Your task to perform on an android device: Open Chrome and go to settings Image 0: 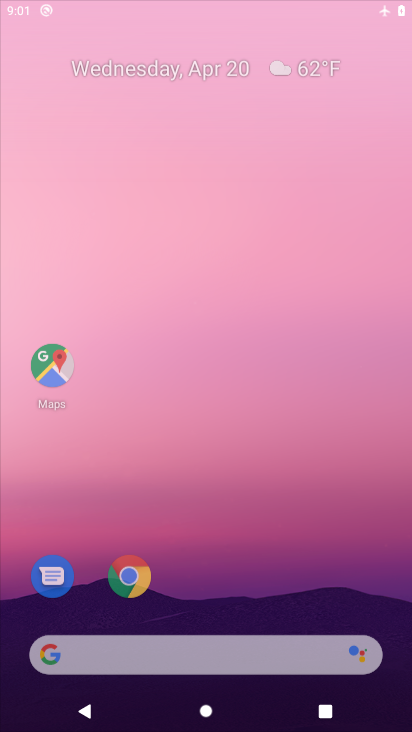
Step 0: click (294, 64)
Your task to perform on an android device: Open Chrome and go to settings Image 1: 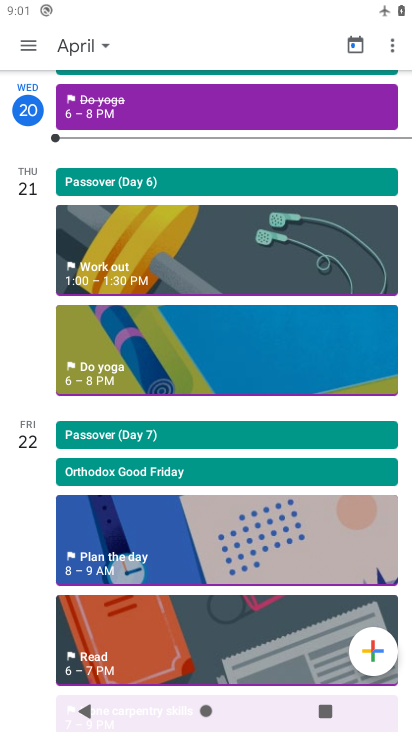
Step 1: press home button
Your task to perform on an android device: Open Chrome and go to settings Image 2: 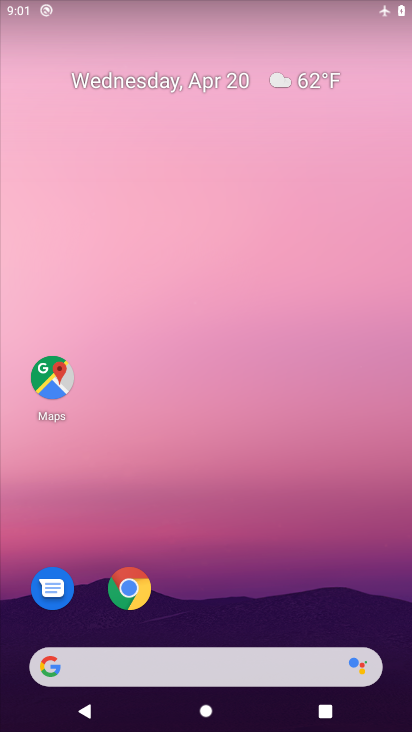
Step 2: click (127, 580)
Your task to perform on an android device: Open Chrome and go to settings Image 3: 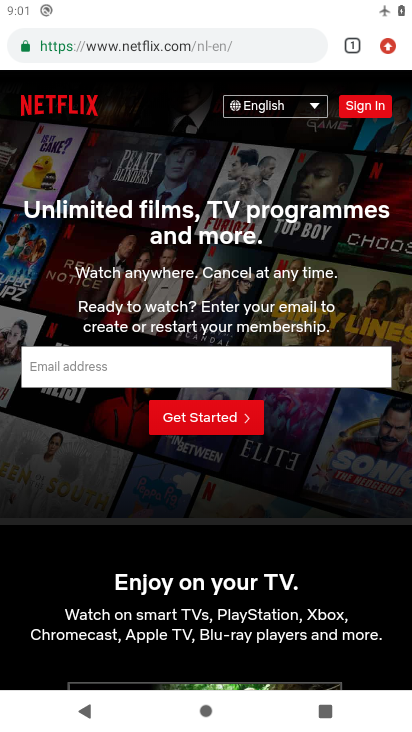
Step 3: click (386, 43)
Your task to perform on an android device: Open Chrome and go to settings Image 4: 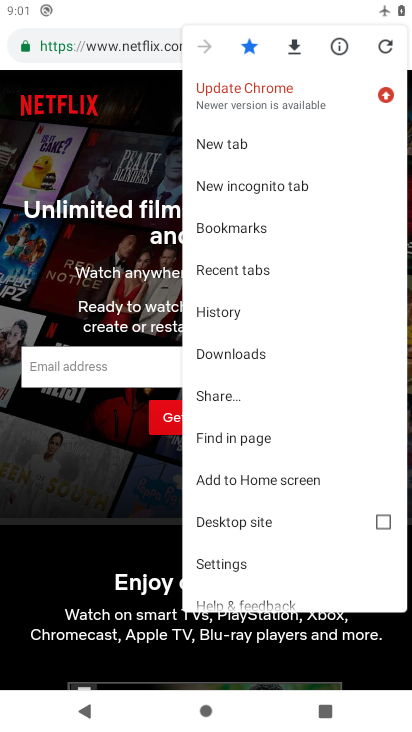
Step 4: click (252, 559)
Your task to perform on an android device: Open Chrome and go to settings Image 5: 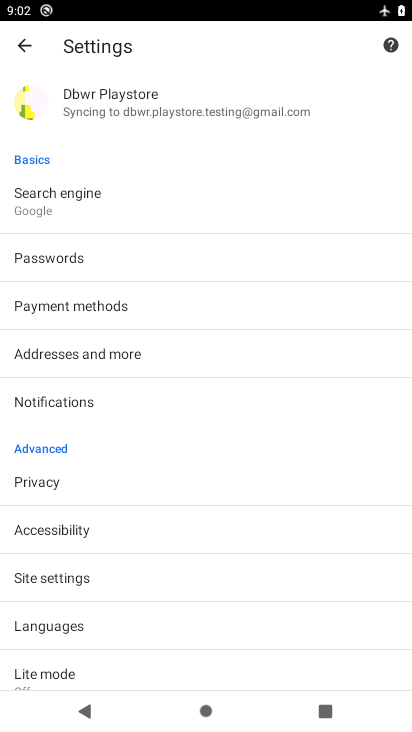
Step 5: task complete